Your task to perform on an android device: Go to CNN.com Image 0: 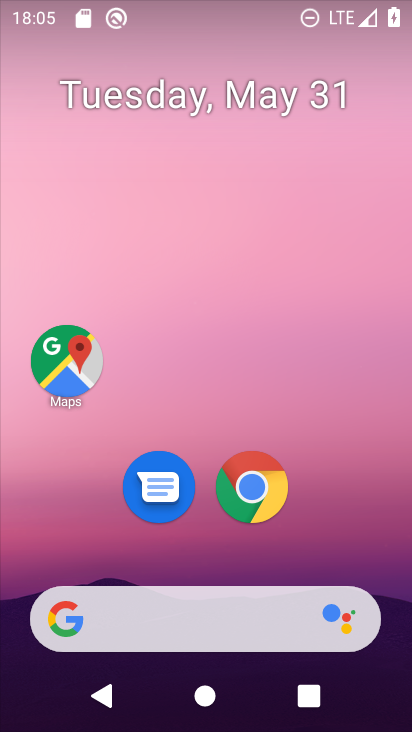
Step 0: click (246, 611)
Your task to perform on an android device: Go to CNN.com Image 1: 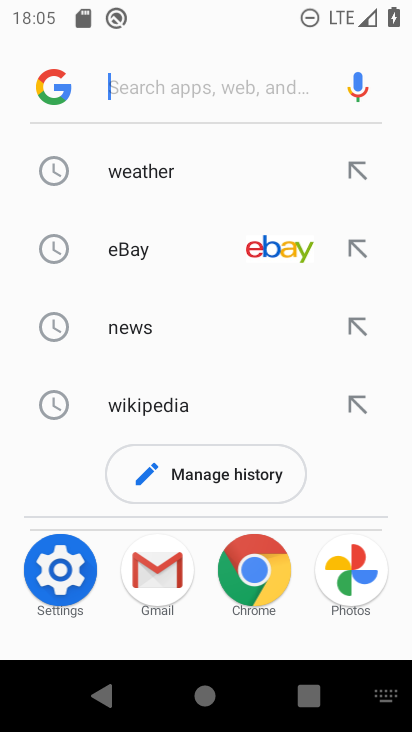
Step 1: type "cnn.com"
Your task to perform on an android device: Go to CNN.com Image 2: 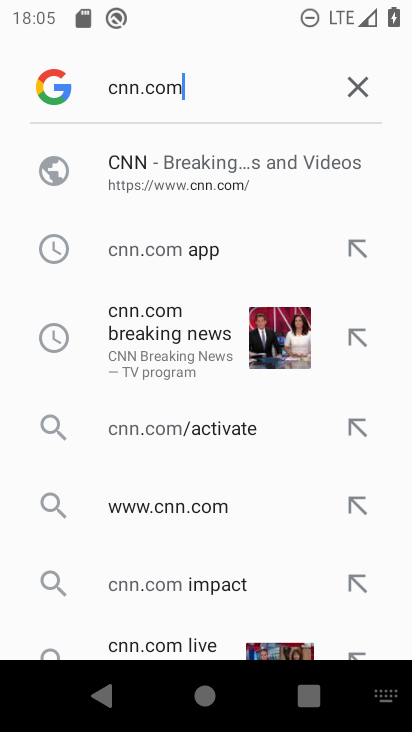
Step 2: click (180, 168)
Your task to perform on an android device: Go to CNN.com Image 3: 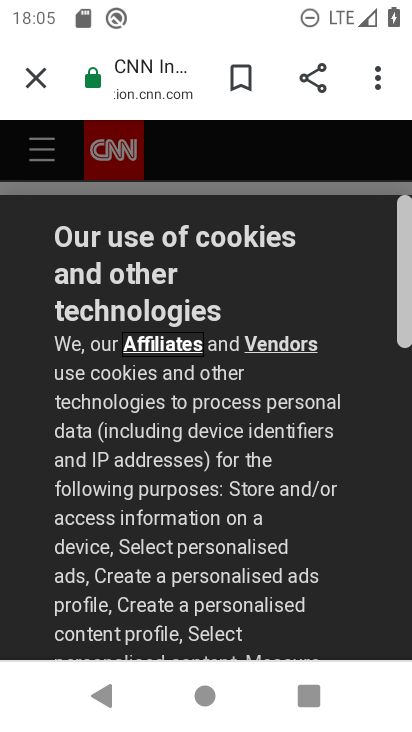
Step 3: task complete